Your task to perform on an android device: turn off javascript in the chrome app Image 0: 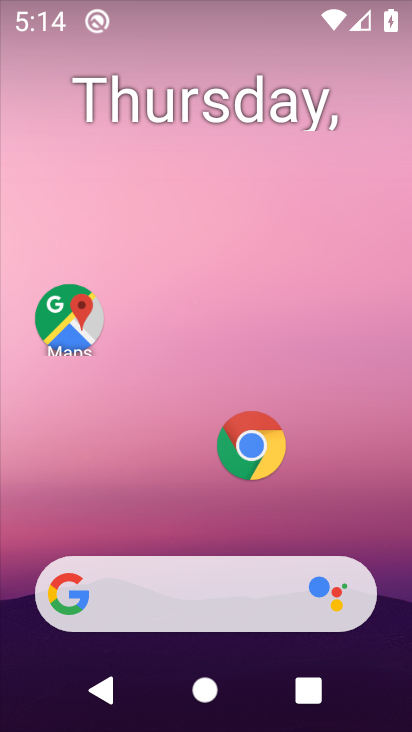
Step 0: drag from (296, 647) to (168, 202)
Your task to perform on an android device: turn off javascript in the chrome app Image 1: 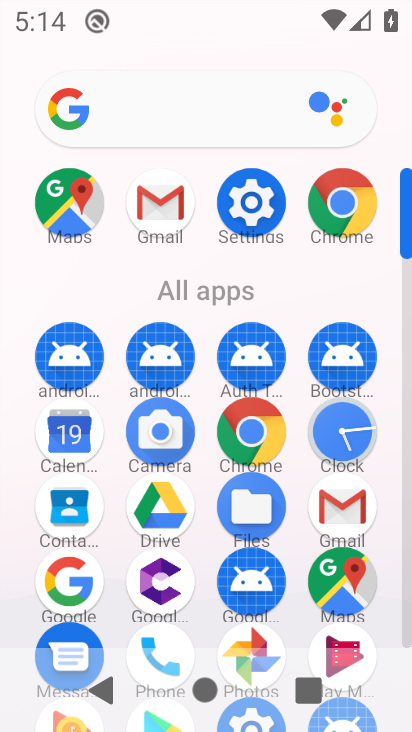
Step 1: click (261, 437)
Your task to perform on an android device: turn off javascript in the chrome app Image 2: 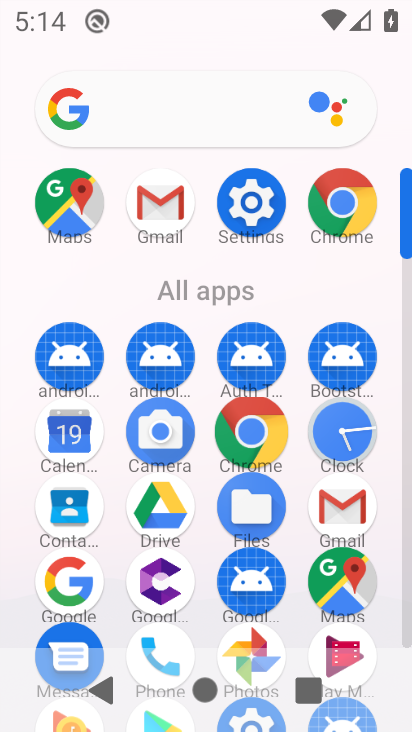
Step 2: click (261, 437)
Your task to perform on an android device: turn off javascript in the chrome app Image 3: 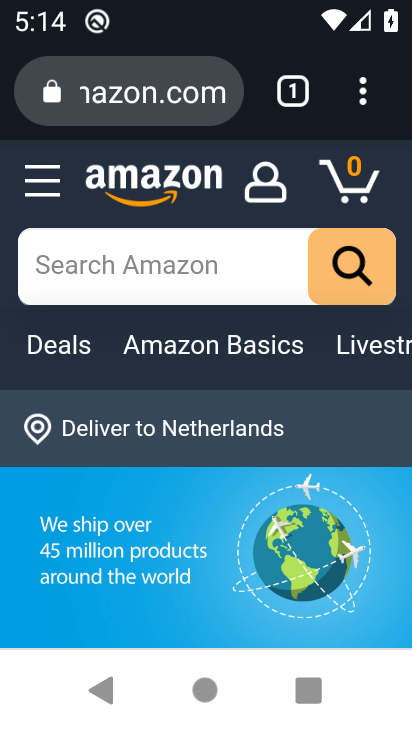
Step 3: drag from (368, 96) to (114, 484)
Your task to perform on an android device: turn off javascript in the chrome app Image 4: 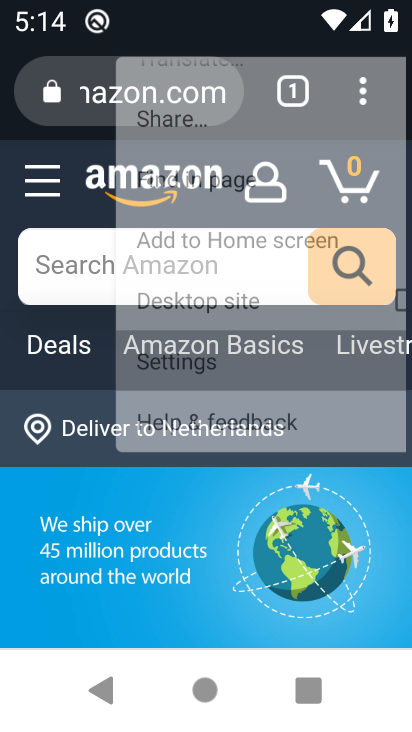
Step 4: click (115, 484)
Your task to perform on an android device: turn off javascript in the chrome app Image 5: 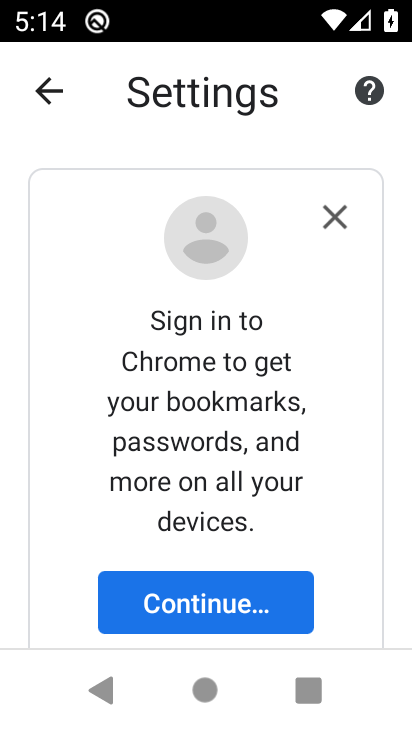
Step 5: click (45, 82)
Your task to perform on an android device: turn off javascript in the chrome app Image 6: 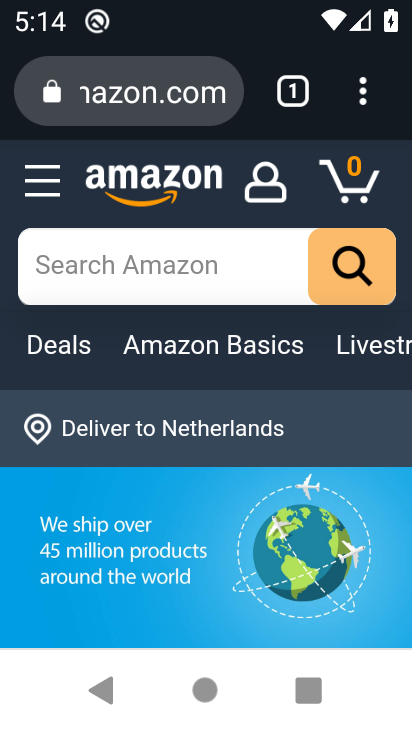
Step 6: click (351, 99)
Your task to perform on an android device: turn off javascript in the chrome app Image 7: 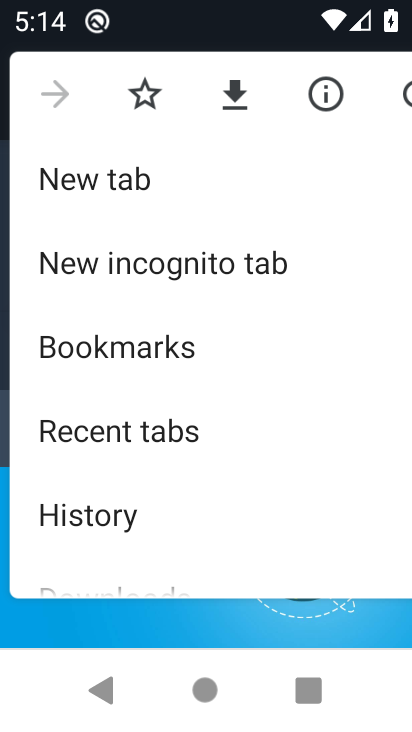
Step 7: drag from (131, 466) to (79, 80)
Your task to perform on an android device: turn off javascript in the chrome app Image 8: 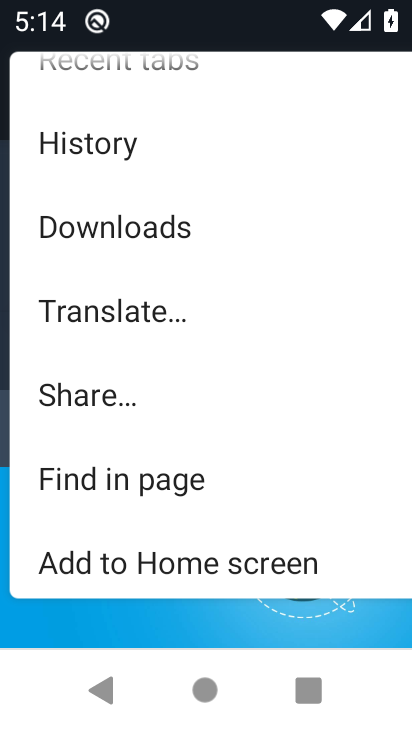
Step 8: drag from (124, 316) to (114, 28)
Your task to perform on an android device: turn off javascript in the chrome app Image 9: 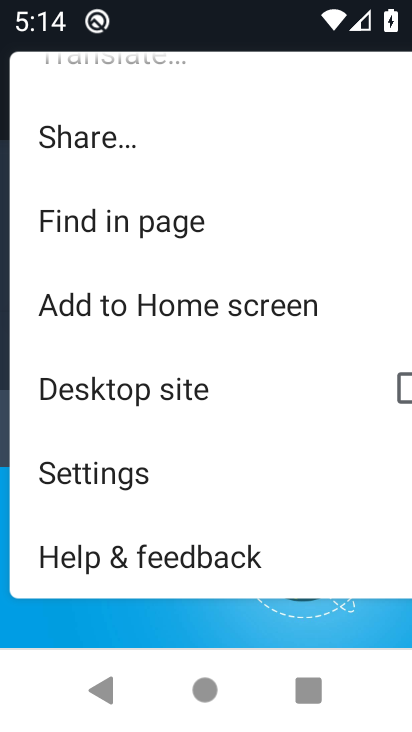
Step 9: click (107, 477)
Your task to perform on an android device: turn off javascript in the chrome app Image 10: 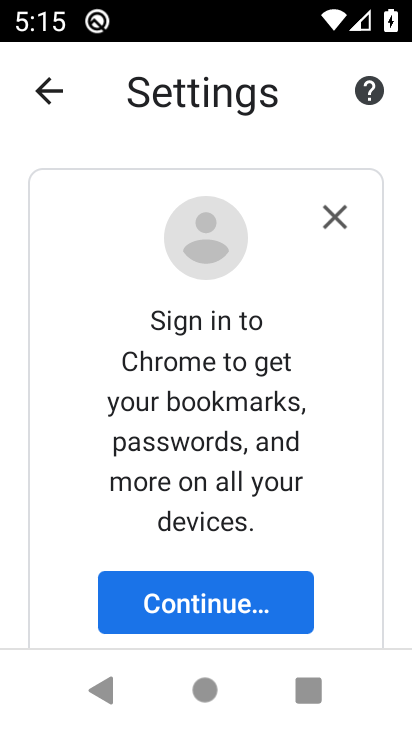
Step 10: click (215, 593)
Your task to perform on an android device: turn off javascript in the chrome app Image 11: 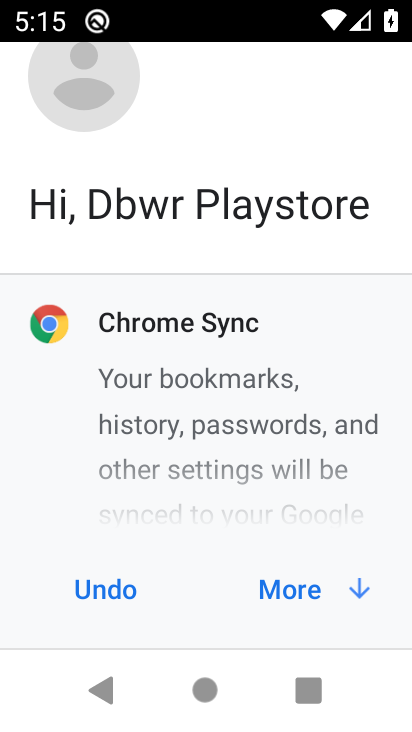
Step 11: drag from (280, 576) to (248, 254)
Your task to perform on an android device: turn off javascript in the chrome app Image 12: 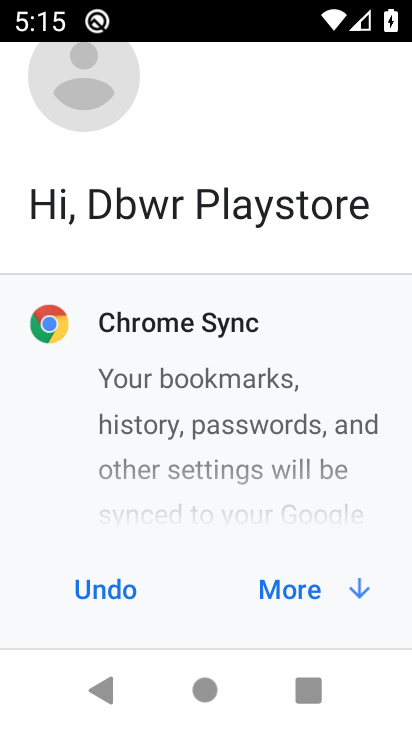
Step 12: drag from (317, 484) to (224, 163)
Your task to perform on an android device: turn off javascript in the chrome app Image 13: 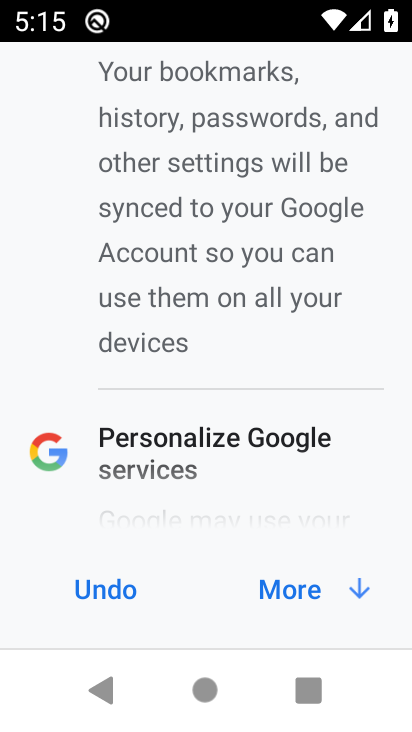
Step 13: drag from (233, 500) to (188, 249)
Your task to perform on an android device: turn off javascript in the chrome app Image 14: 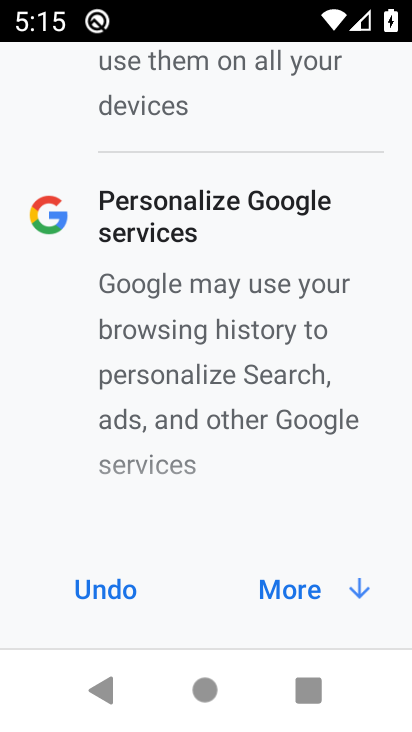
Step 14: drag from (175, 490) to (155, 147)
Your task to perform on an android device: turn off javascript in the chrome app Image 15: 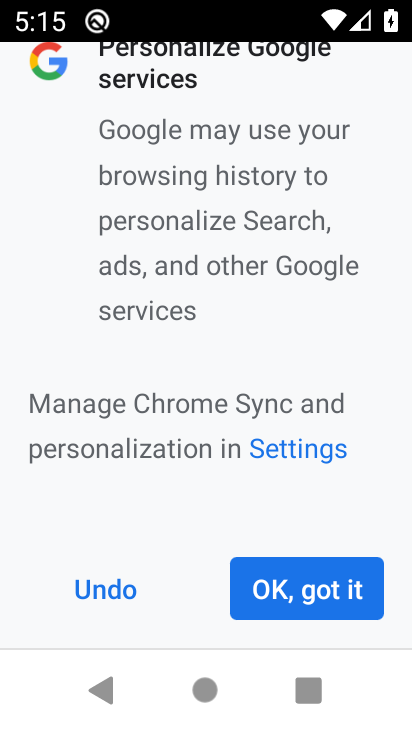
Step 15: drag from (144, 196) to (219, 597)
Your task to perform on an android device: turn off javascript in the chrome app Image 16: 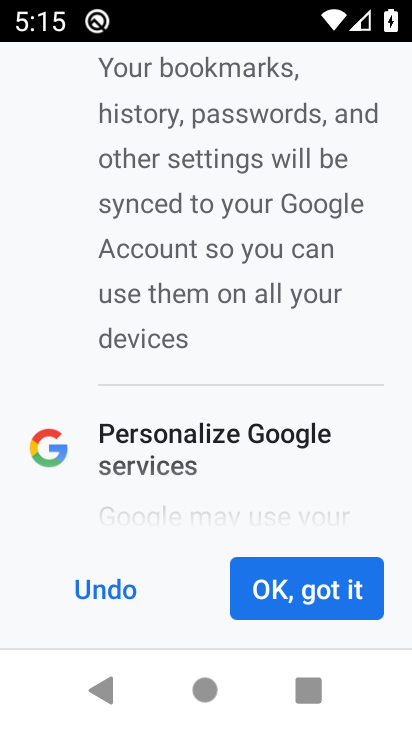
Step 16: drag from (171, 382) to (266, 567)
Your task to perform on an android device: turn off javascript in the chrome app Image 17: 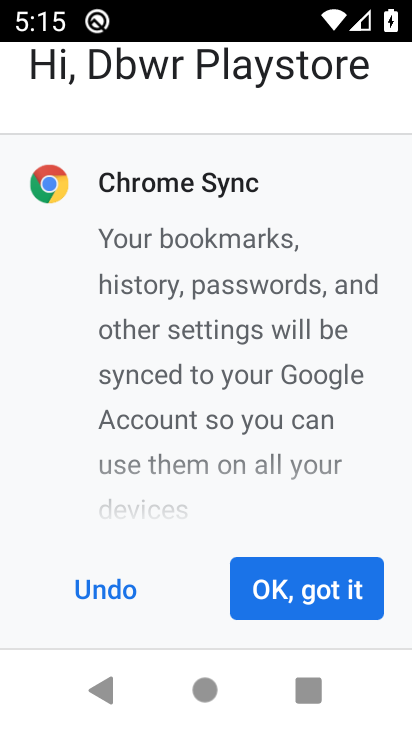
Step 17: click (300, 597)
Your task to perform on an android device: turn off javascript in the chrome app Image 18: 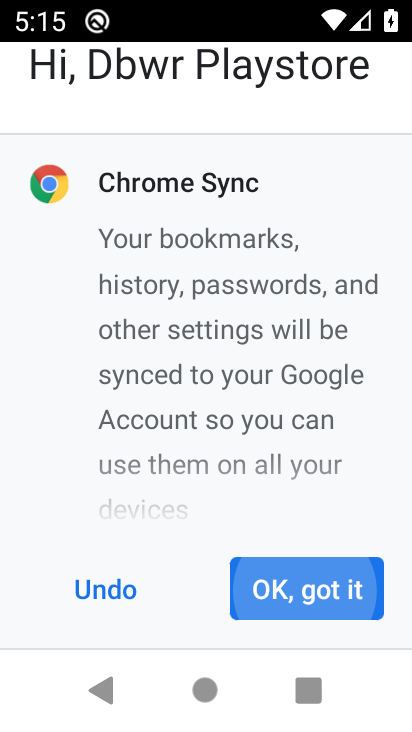
Step 18: click (299, 588)
Your task to perform on an android device: turn off javascript in the chrome app Image 19: 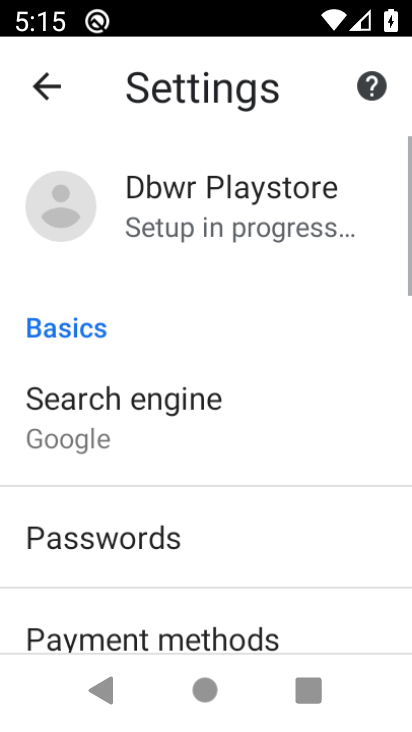
Step 19: click (299, 588)
Your task to perform on an android device: turn off javascript in the chrome app Image 20: 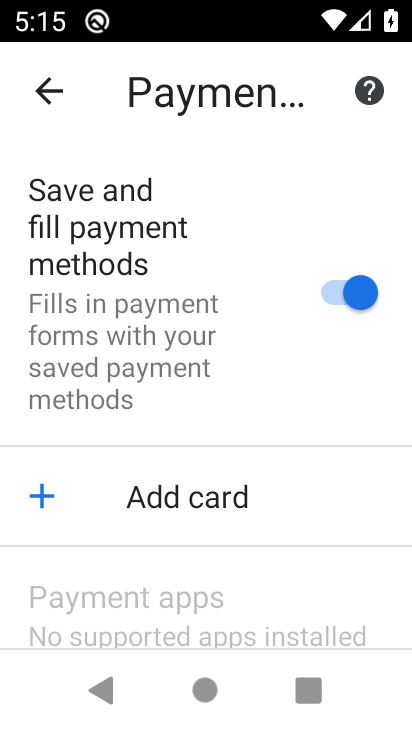
Step 20: click (44, 89)
Your task to perform on an android device: turn off javascript in the chrome app Image 21: 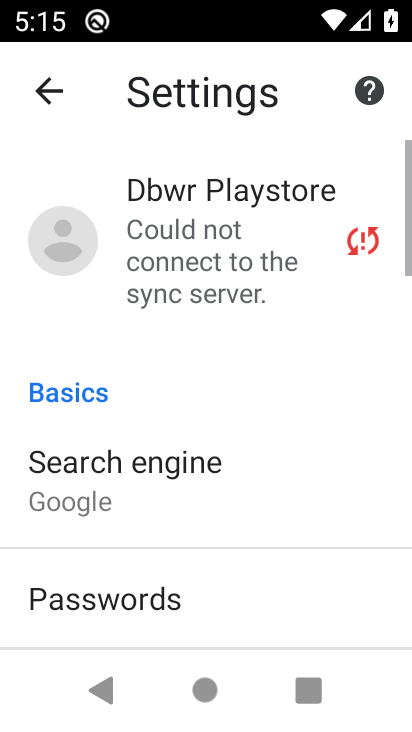
Step 21: drag from (213, 468) to (170, 230)
Your task to perform on an android device: turn off javascript in the chrome app Image 22: 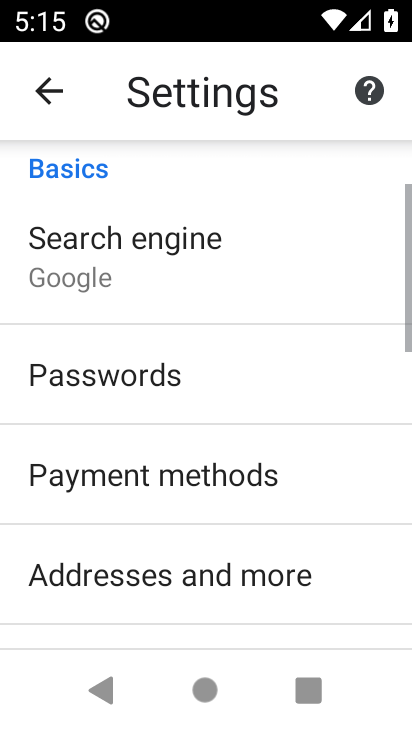
Step 22: drag from (213, 447) to (197, 155)
Your task to perform on an android device: turn off javascript in the chrome app Image 23: 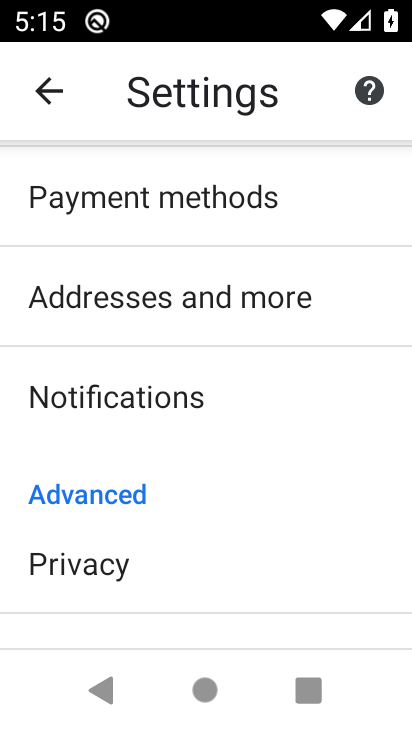
Step 23: drag from (149, 548) to (112, 230)
Your task to perform on an android device: turn off javascript in the chrome app Image 24: 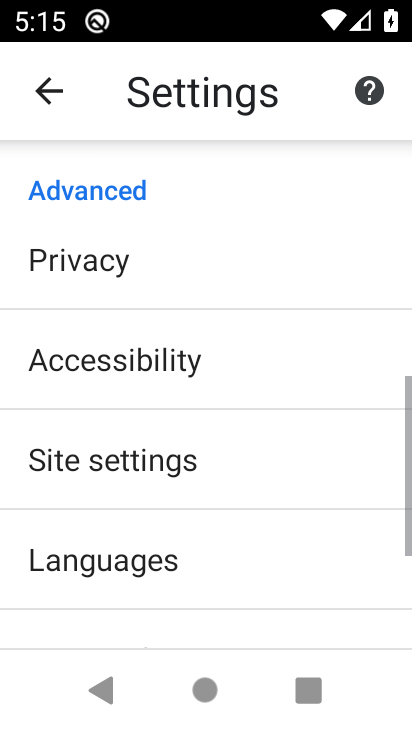
Step 24: drag from (150, 530) to (152, 216)
Your task to perform on an android device: turn off javascript in the chrome app Image 25: 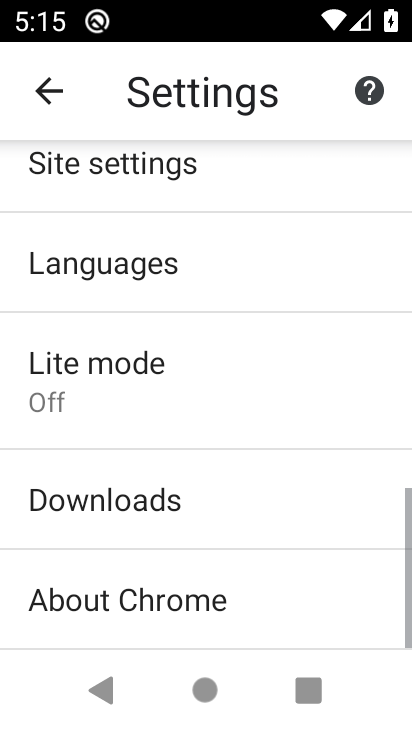
Step 25: drag from (184, 400) to (187, 361)
Your task to perform on an android device: turn off javascript in the chrome app Image 26: 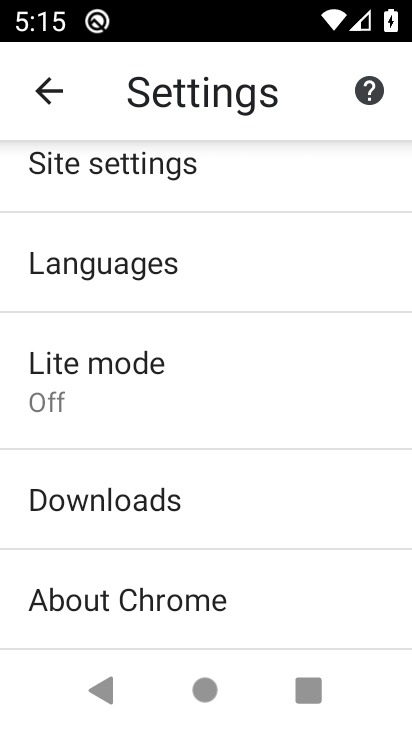
Step 26: click (97, 172)
Your task to perform on an android device: turn off javascript in the chrome app Image 27: 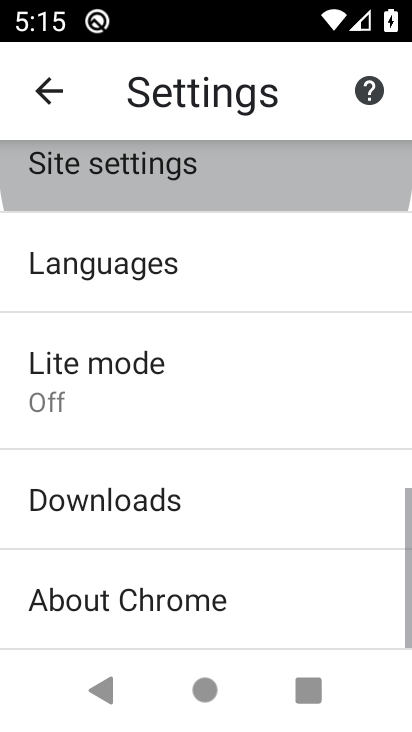
Step 27: click (97, 171)
Your task to perform on an android device: turn off javascript in the chrome app Image 28: 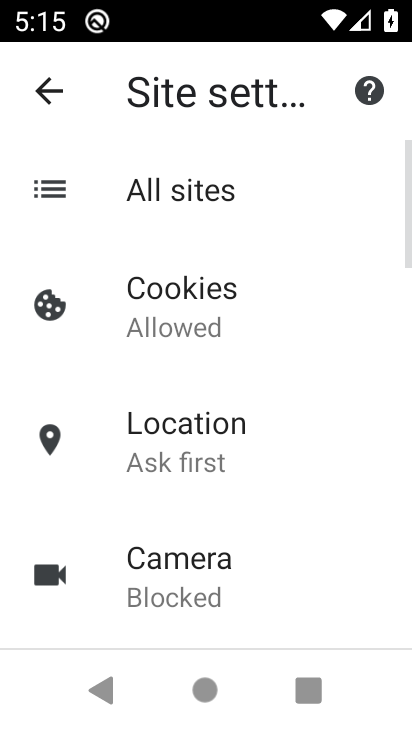
Step 28: drag from (216, 518) to (185, 297)
Your task to perform on an android device: turn off javascript in the chrome app Image 29: 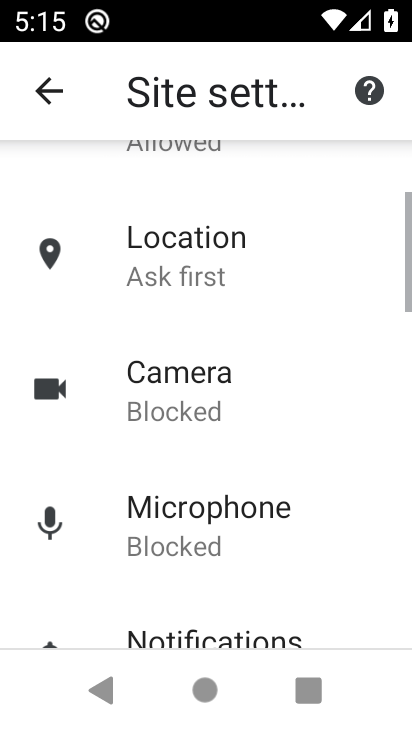
Step 29: drag from (217, 491) to (193, 160)
Your task to perform on an android device: turn off javascript in the chrome app Image 30: 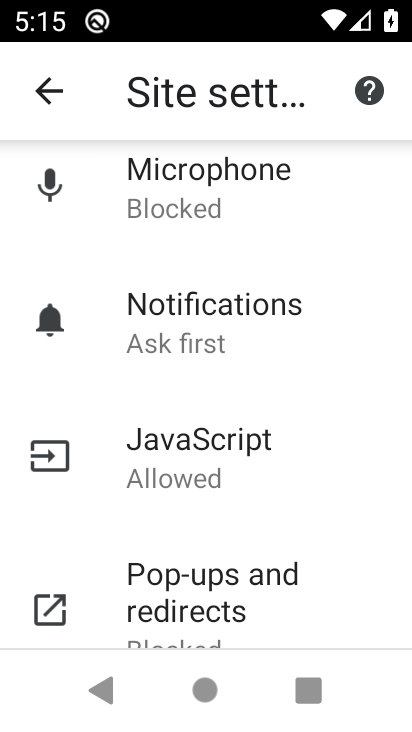
Step 30: click (191, 461)
Your task to perform on an android device: turn off javascript in the chrome app Image 31: 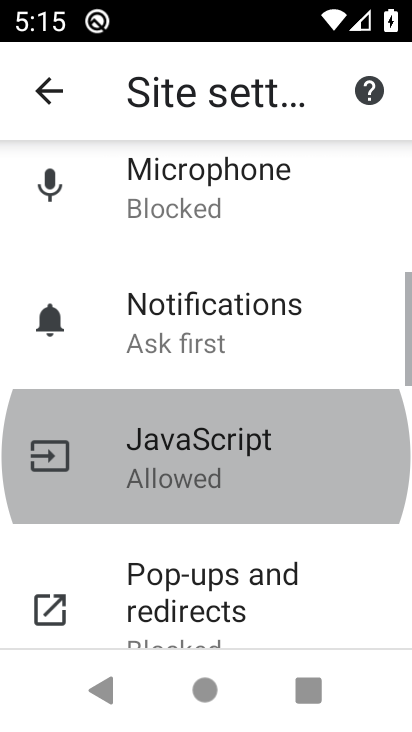
Step 31: click (191, 461)
Your task to perform on an android device: turn off javascript in the chrome app Image 32: 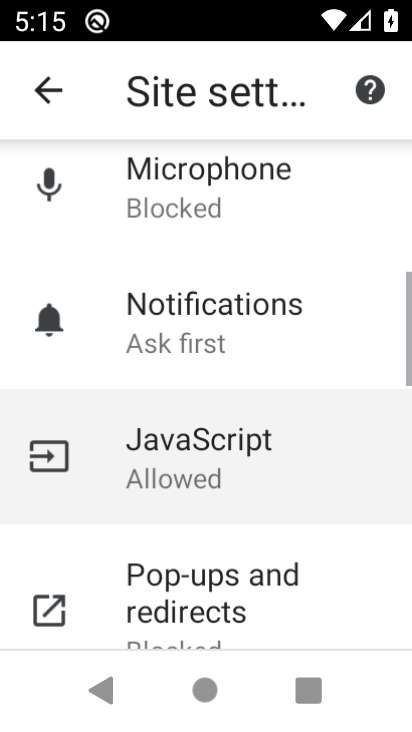
Step 32: click (191, 461)
Your task to perform on an android device: turn off javascript in the chrome app Image 33: 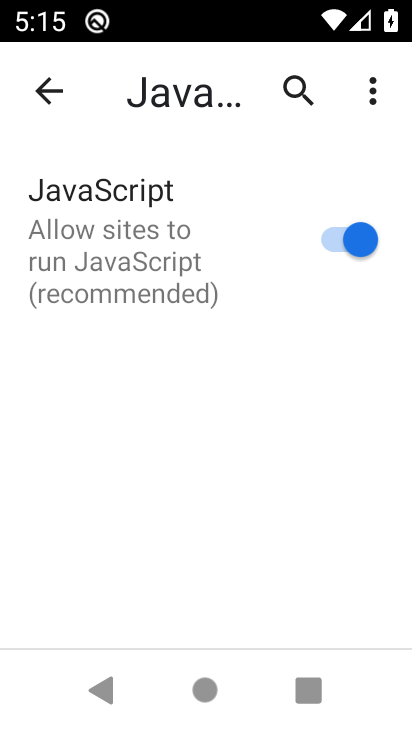
Step 33: click (336, 240)
Your task to perform on an android device: turn off javascript in the chrome app Image 34: 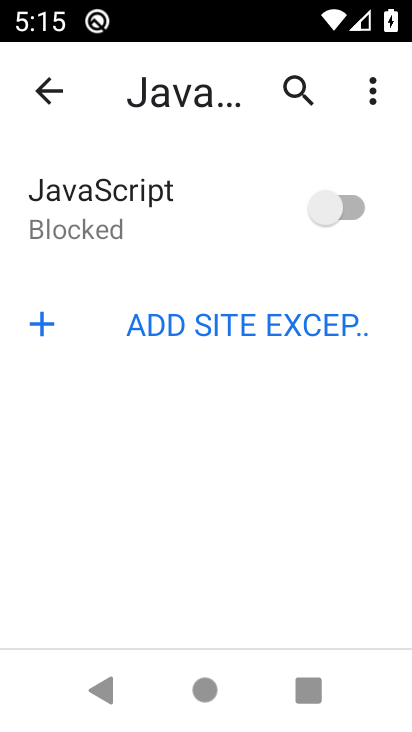
Step 34: task complete